Your task to perform on an android device: Check the news Image 0: 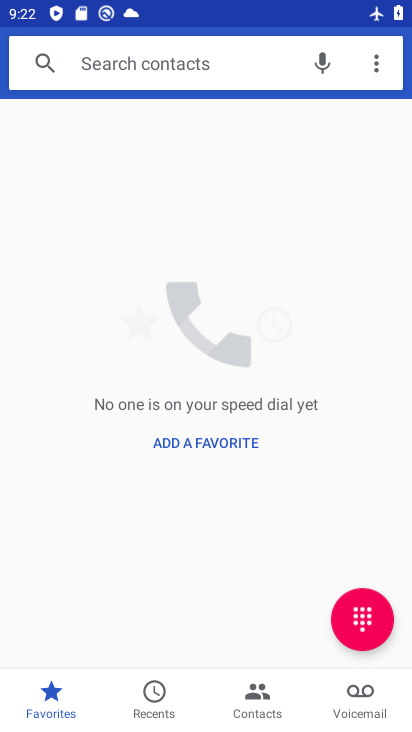
Step 0: press home button
Your task to perform on an android device: Check the news Image 1: 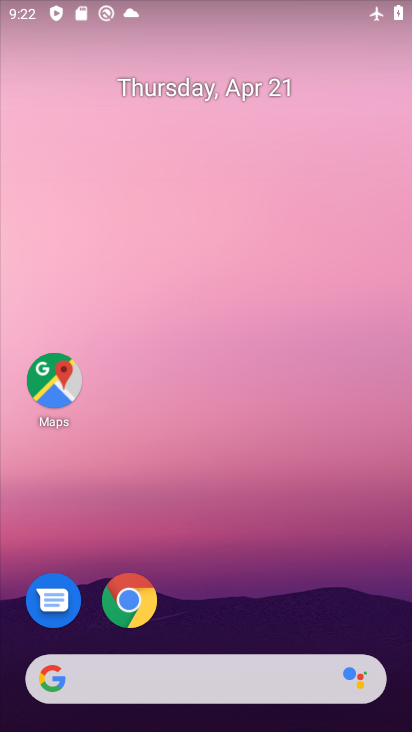
Step 1: drag from (216, 575) to (220, 142)
Your task to perform on an android device: Check the news Image 2: 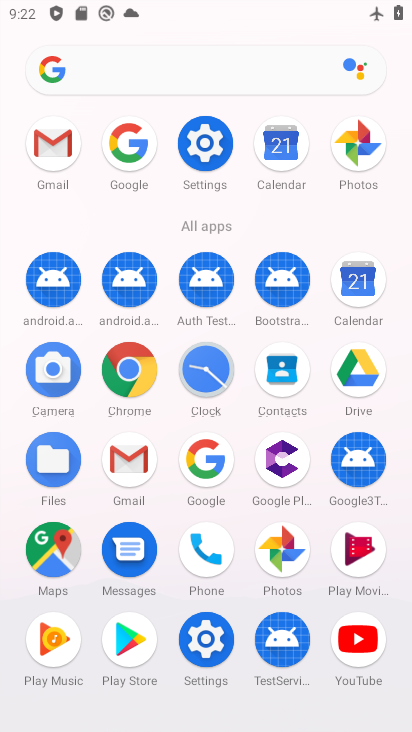
Step 2: click (206, 466)
Your task to perform on an android device: Check the news Image 3: 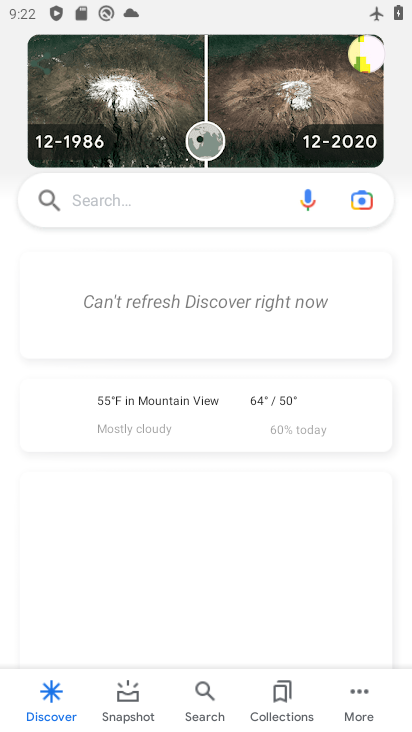
Step 3: press back button
Your task to perform on an android device: Check the news Image 4: 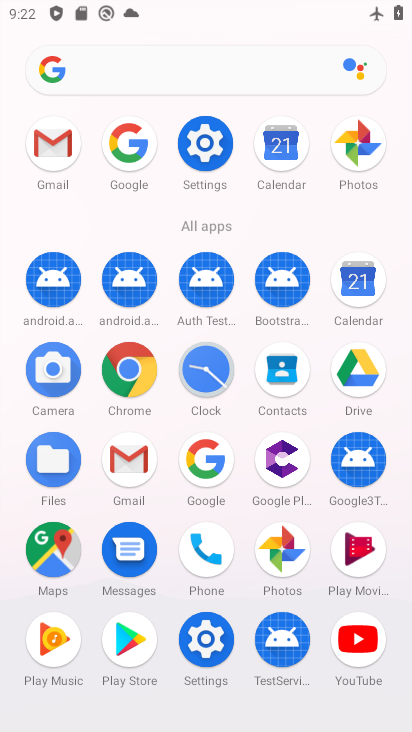
Step 4: click (138, 146)
Your task to perform on an android device: Check the news Image 5: 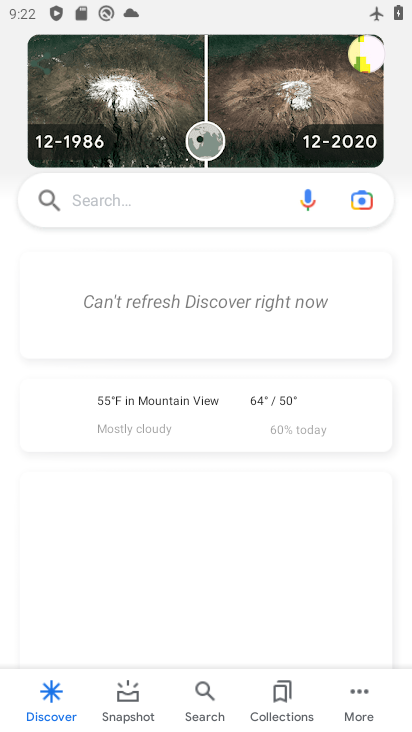
Step 5: drag from (235, 157) to (226, 287)
Your task to perform on an android device: Check the news Image 6: 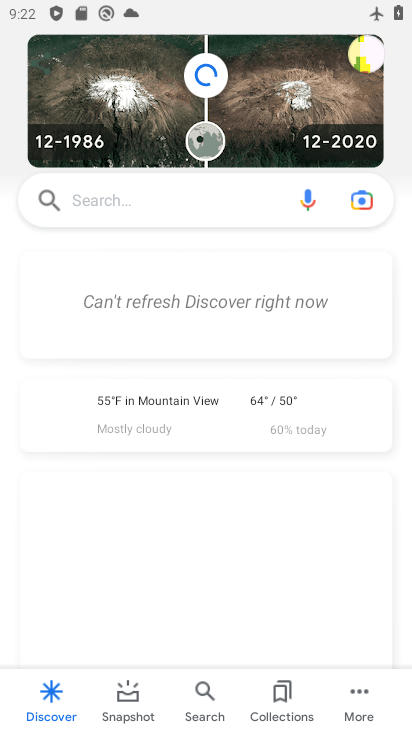
Step 6: click (130, 209)
Your task to perform on an android device: Check the news Image 7: 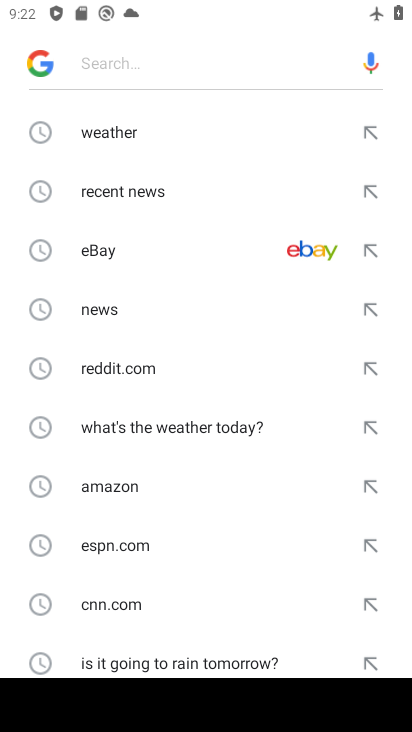
Step 7: click (119, 308)
Your task to perform on an android device: Check the news Image 8: 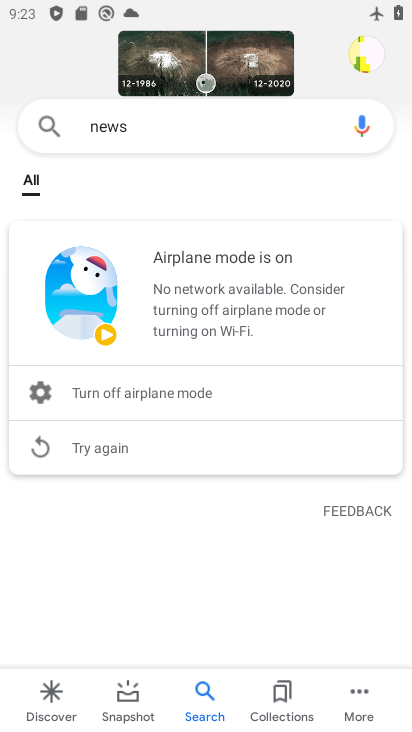
Step 8: task complete